Your task to perform on an android device: toggle pop-ups in chrome Image 0: 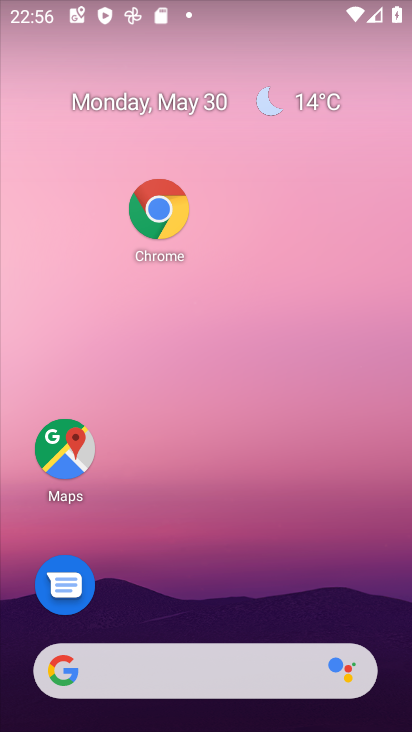
Step 0: drag from (181, 590) to (250, 97)
Your task to perform on an android device: toggle pop-ups in chrome Image 1: 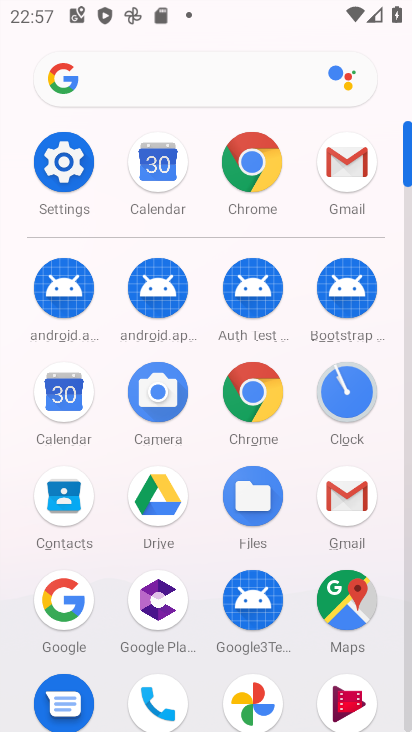
Step 1: click (248, 158)
Your task to perform on an android device: toggle pop-ups in chrome Image 2: 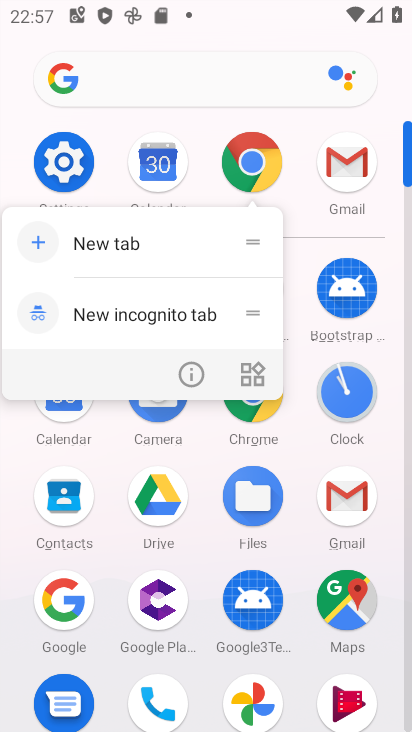
Step 2: click (197, 369)
Your task to perform on an android device: toggle pop-ups in chrome Image 3: 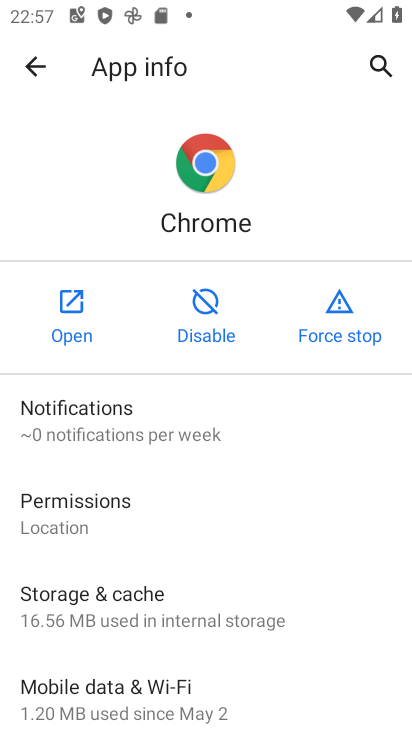
Step 3: click (74, 313)
Your task to perform on an android device: toggle pop-ups in chrome Image 4: 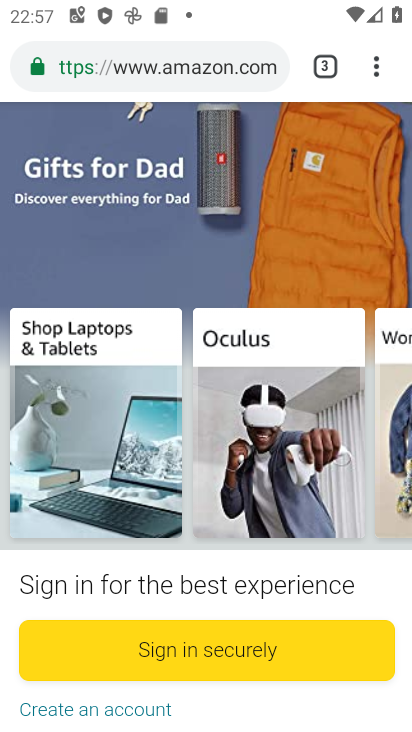
Step 4: drag from (382, 63) to (208, 577)
Your task to perform on an android device: toggle pop-ups in chrome Image 5: 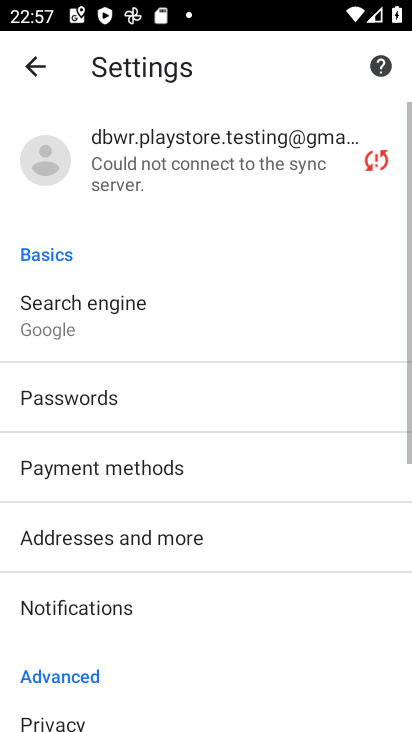
Step 5: drag from (217, 568) to (318, 5)
Your task to perform on an android device: toggle pop-ups in chrome Image 6: 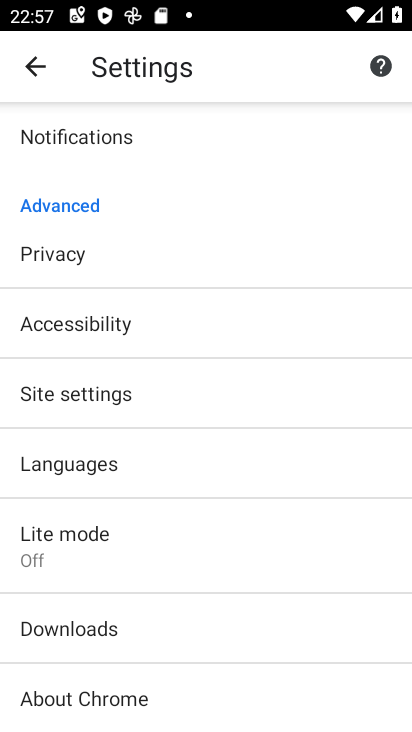
Step 6: click (108, 386)
Your task to perform on an android device: toggle pop-ups in chrome Image 7: 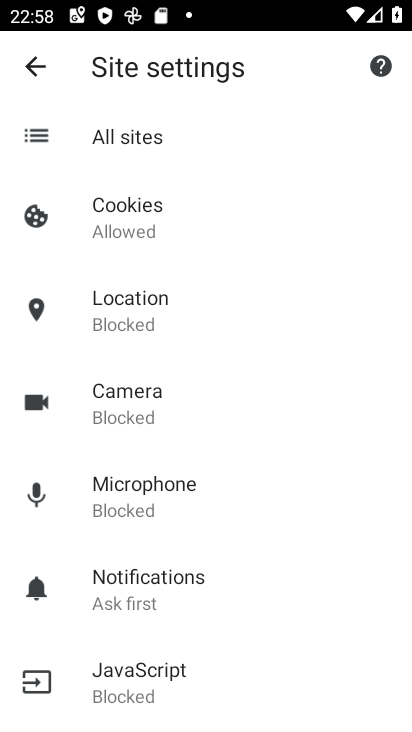
Step 7: drag from (169, 463) to (304, 44)
Your task to perform on an android device: toggle pop-ups in chrome Image 8: 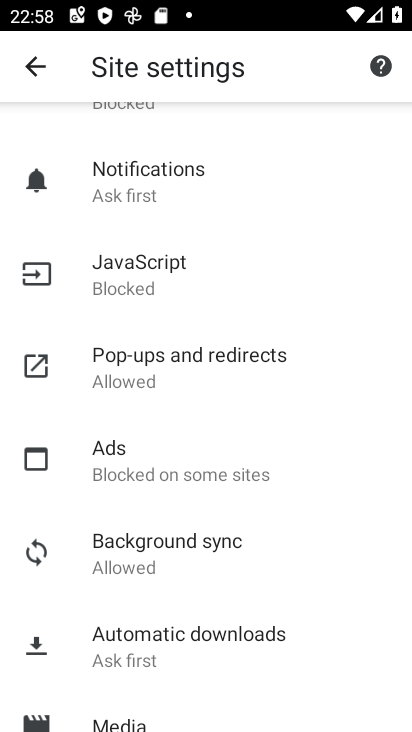
Step 8: click (180, 391)
Your task to perform on an android device: toggle pop-ups in chrome Image 9: 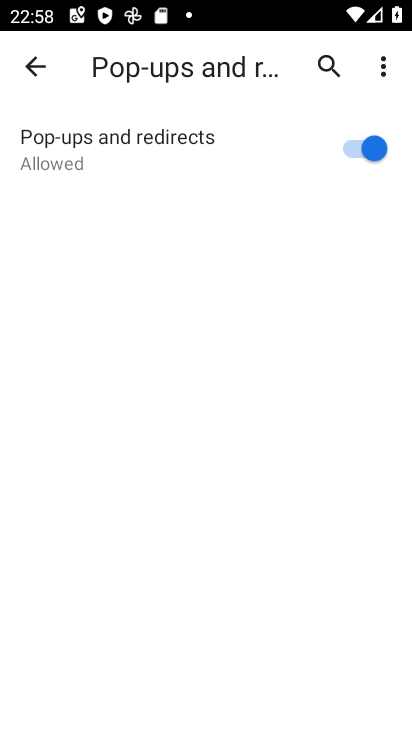
Step 9: click (356, 129)
Your task to perform on an android device: toggle pop-ups in chrome Image 10: 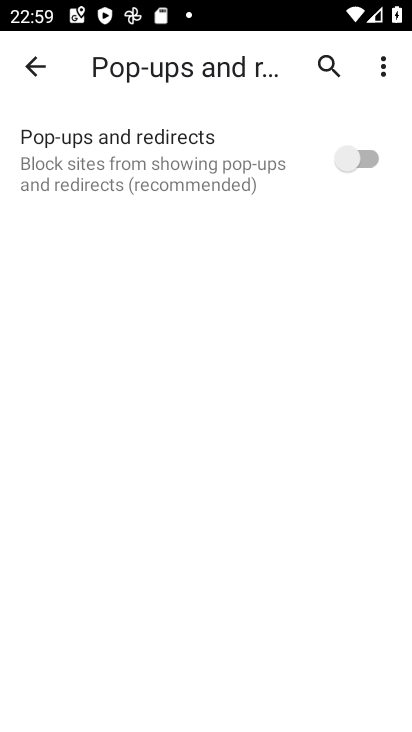
Step 10: task complete